Your task to perform on an android device: open wifi settings Image 0: 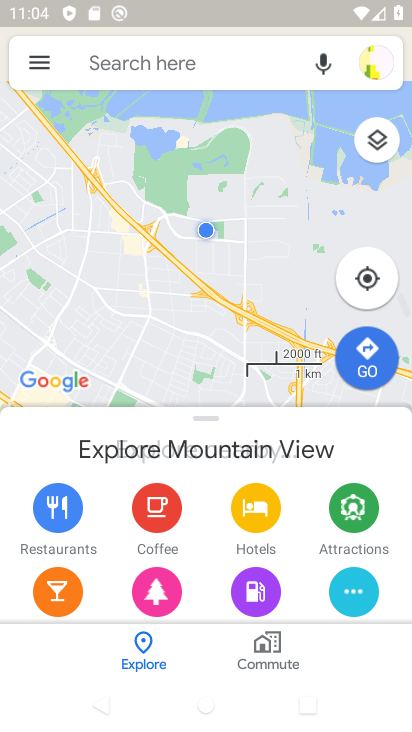
Step 0: press home button
Your task to perform on an android device: open wifi settings Image 1: 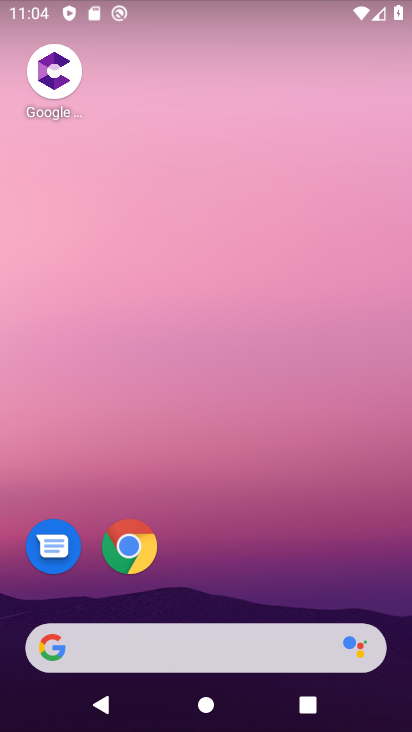
Step 1: drag from (187, 566) to (268, 72)
Your task to perform on an android device: open wifi settings Image 2: 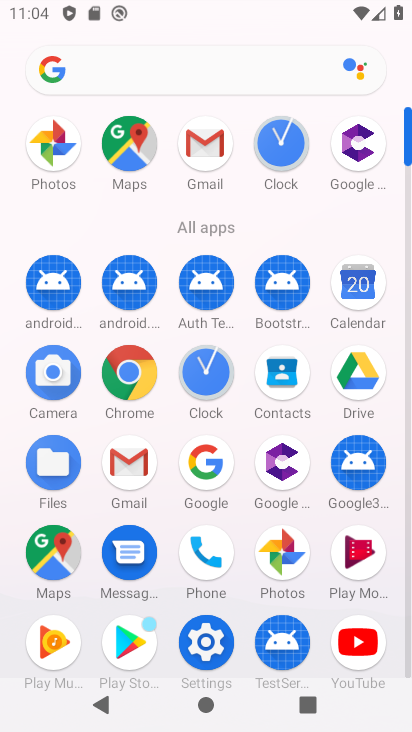
Step 2: click (200, 648)
Your task to perform on an android device: open wifi settings Image 3: 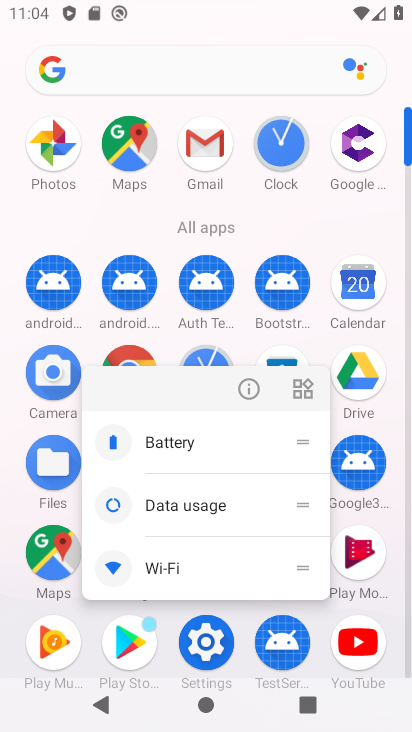
Step 3: click (209, 645)
Your task to perform on an android device: open wifi settings Image 4: 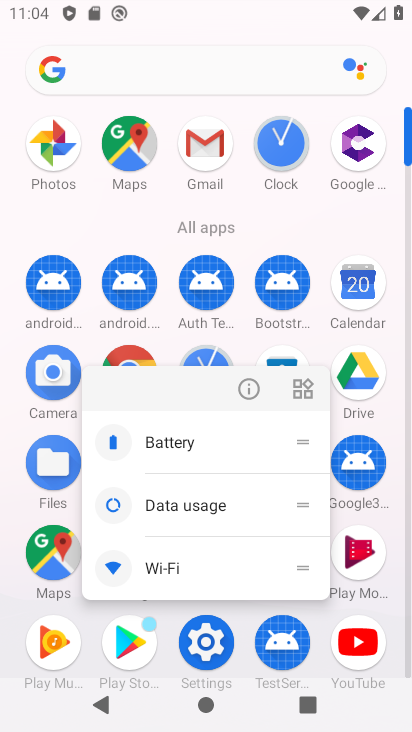
Step 4: click (209, 646)
Your task to perform on an android device: open wifi settings Image 5: 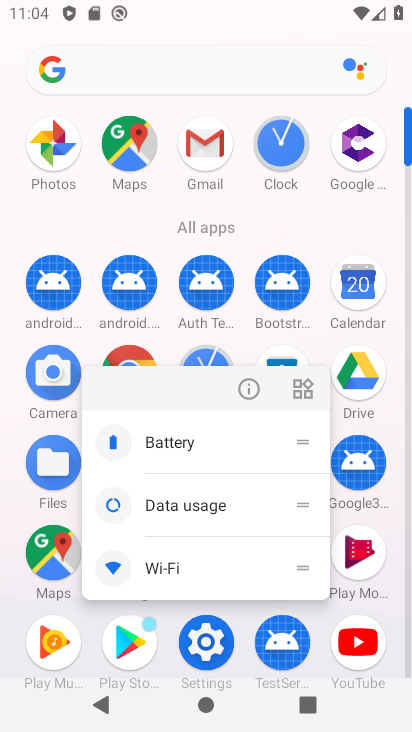
Step 5: click (209, 646)
Your task to perform on an android device: open wifi settings Image 6: 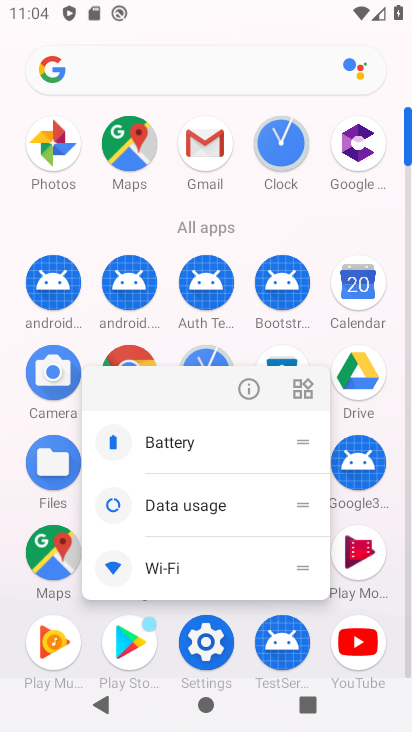
Step 6: click (202, 639)
Your task to perform on an android device: open wifi settings Image 7: 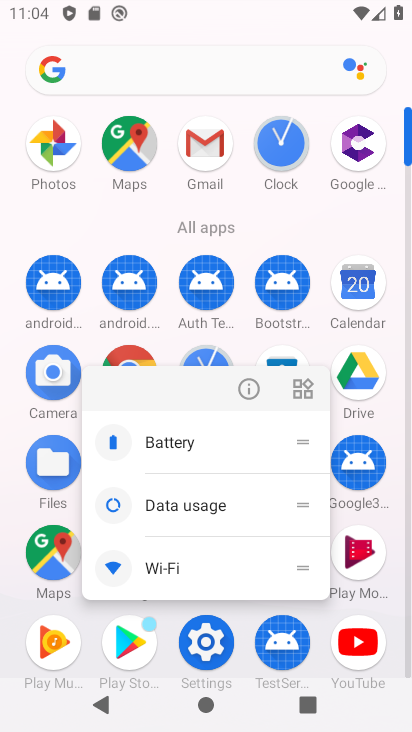
Step 7: click (203, 653)
Your task to perform on an android device: open wifi settings Image 8: 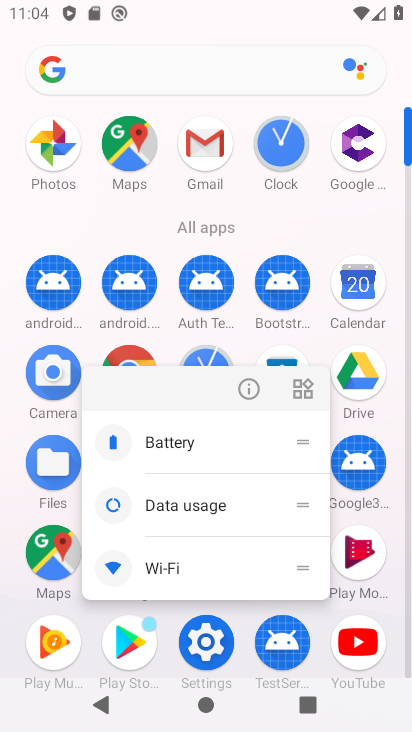
Step 8: click (208, 649)
Your task to perform on an android device: open wifi settings Image 9: 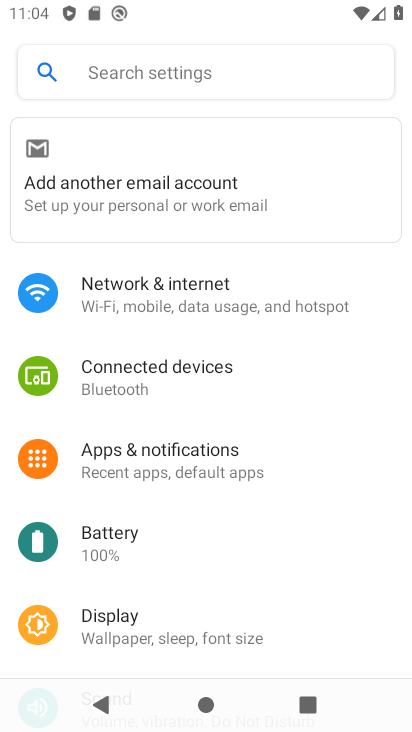
Step 9: click (178, 290)
Your task to perform on an android device: open wifi settings Image 10: 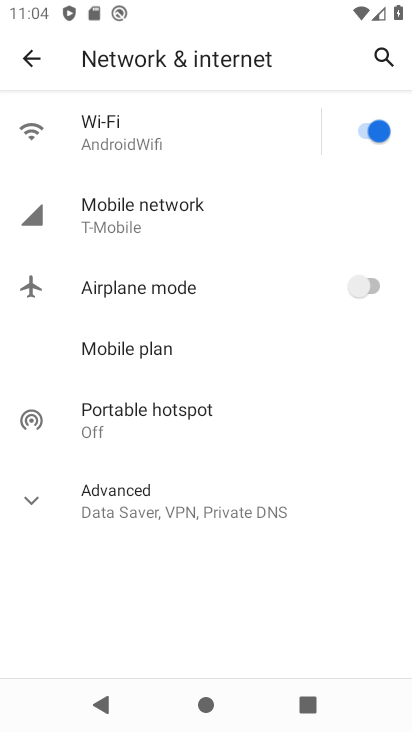
Step 10: click (173, 143)
Your task to perform on an android device: open wifi settings Image 11: 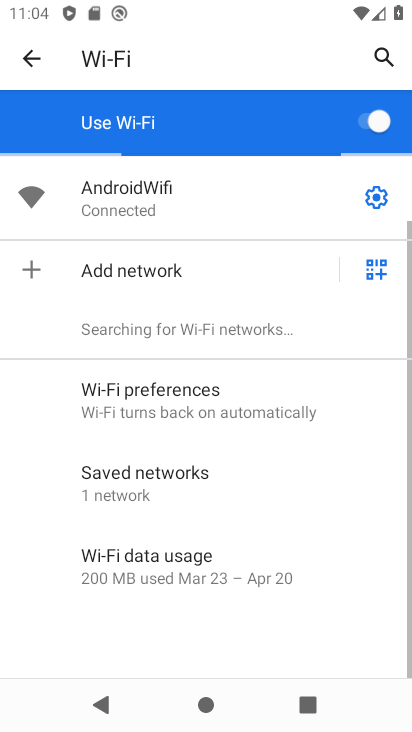
Step 11: task complete